Your task to perform on an android device: Search for vegetarian restaurants on Maps Image 0: 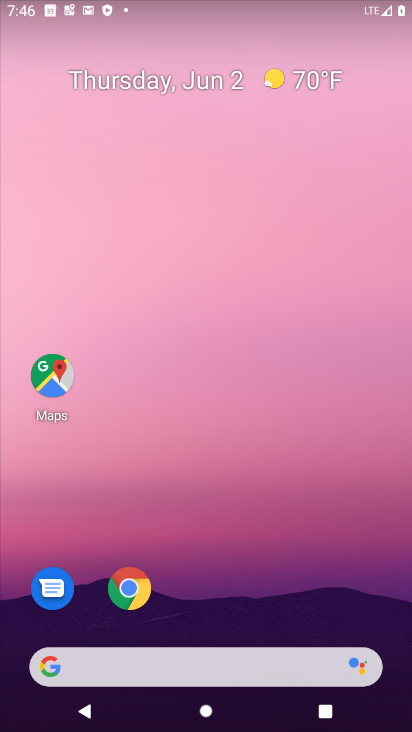
Step 0: click (50, 344)
Your task to perform on an android device: Search for vegetarian restaurants on Maps Image 1: 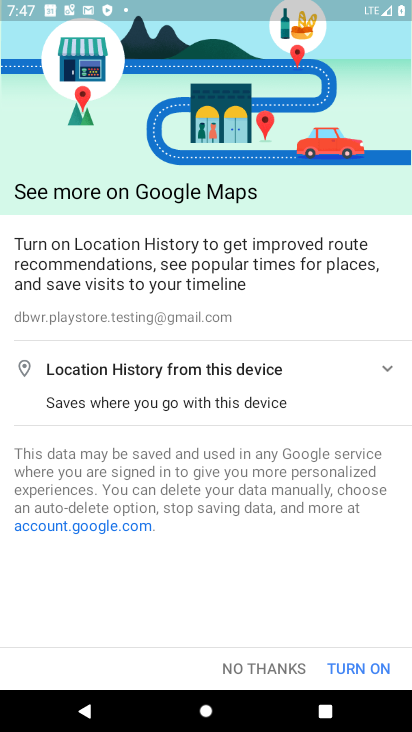
Step 1: click (253, 665)
Your task to perform on an android device: Search for vegetarian restaurants on Maps Image 2: 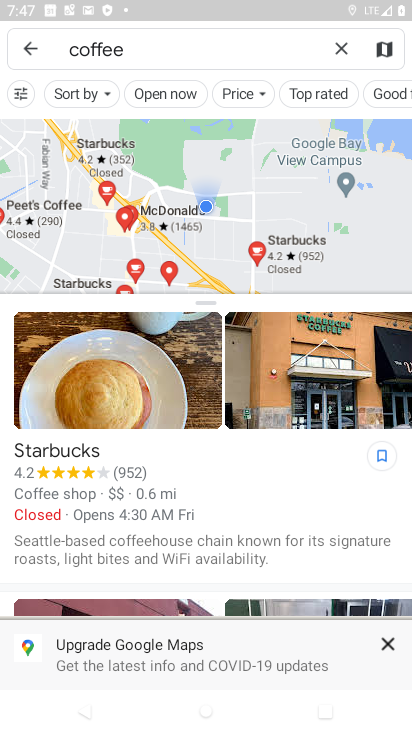
Step 2: click (345, 52)
Your task to perform on an android device: Search for vegetarian restaurants on Maps Image 3: 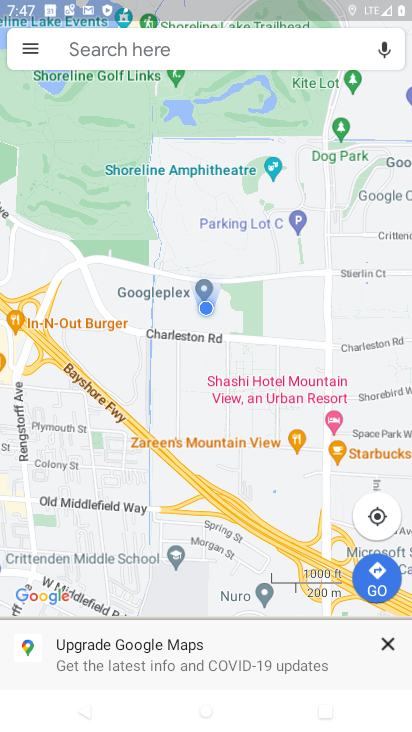
Step 3: click (142, 46)
Your task to perform on an android device: Search for vegetarian restaurants on Maps Image 4: 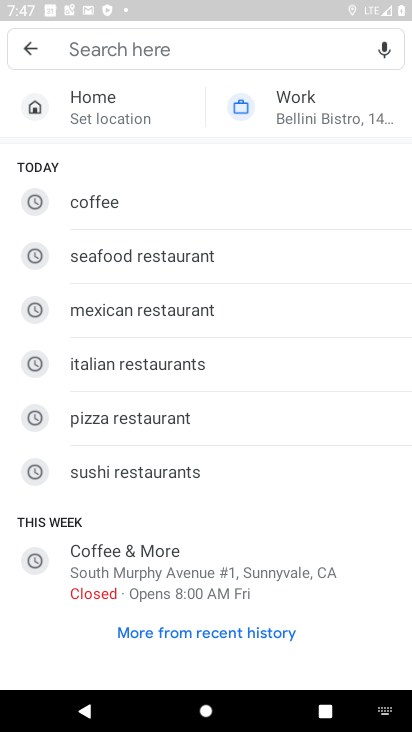
Step 4: type "vegetarian restaurants"
Your task to perform on an android device: Search for vegetarian restaurants on Maps Image 5: 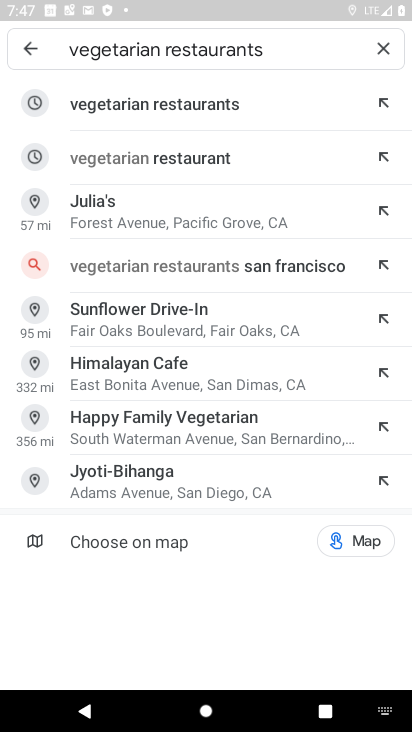
Step 5: click (217, 123)
Your task to perform on an android device: Search for vegetarian restaurants on Maps Image 6: 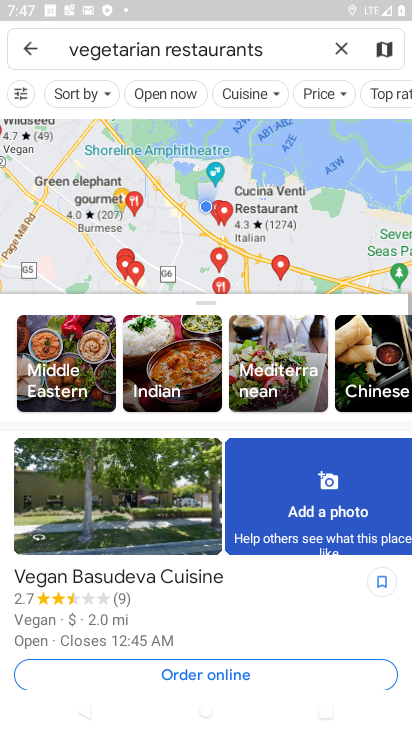
Step 6: task complete